Your task to perform on an android device: turn off location history Image 0: 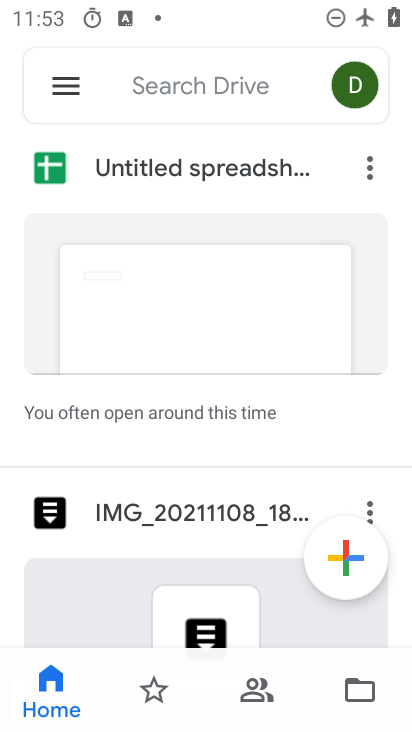
Step 0: press home button
Your task to perform on an android device: turn off location history Image 1: 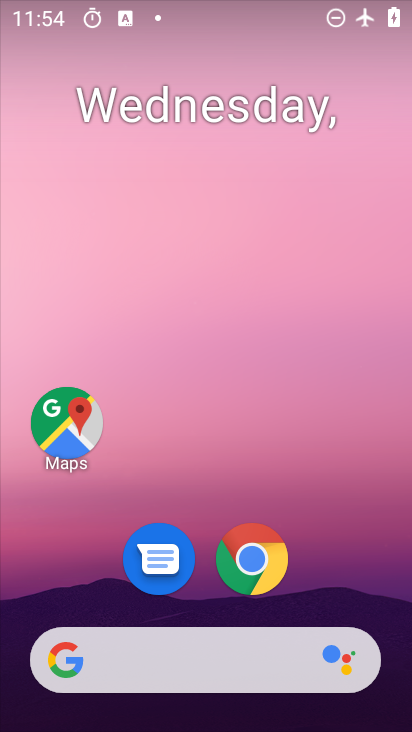
Step 1: drag from (215, 622) to (208, 81)
Your task to perform on an android device: turn off location history Image 2: 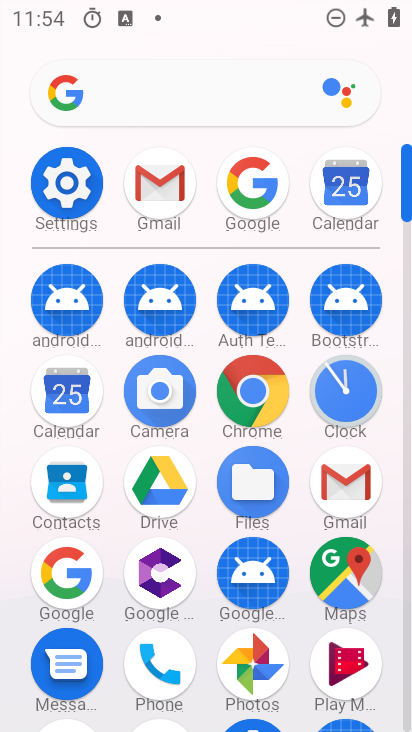
Step 2: click (75, 195)
Your task to perform on an android device: turn off location history Image 3: 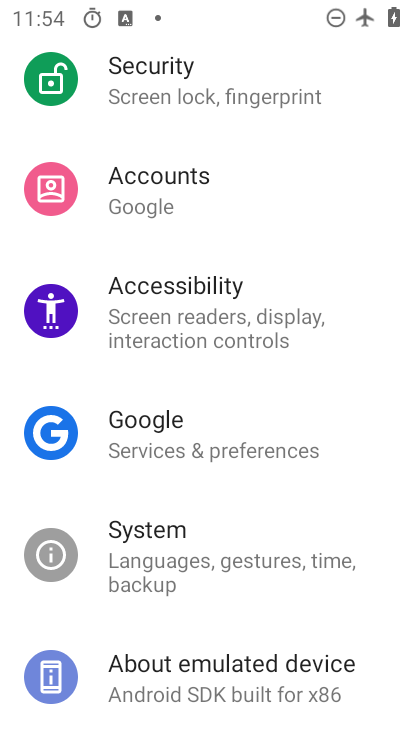
Step 3: drag from (238, 387) to (189, 694)
Your task to perform on an android device: turn off location history Image 4: 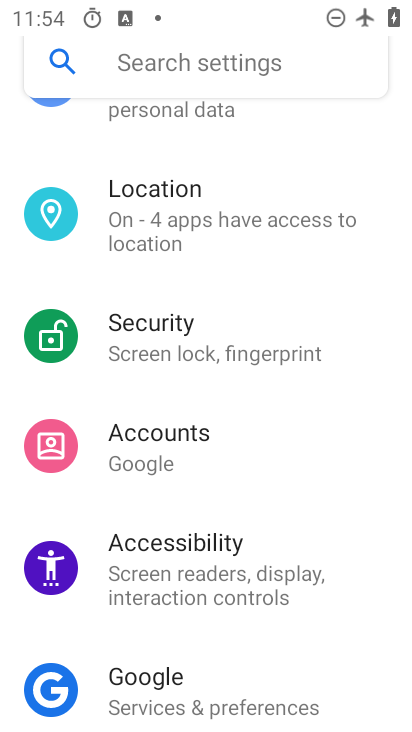
Step 4: click (256, 269)
Your task to perform on an android device: turn off location history Image 5: 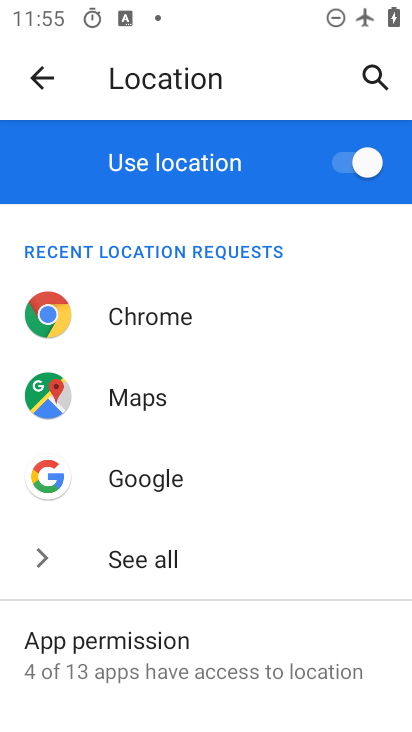
Step 5: drag from (189, 571) to (161, 231)
Your task to perform on an android device: turn off location history Image 6: 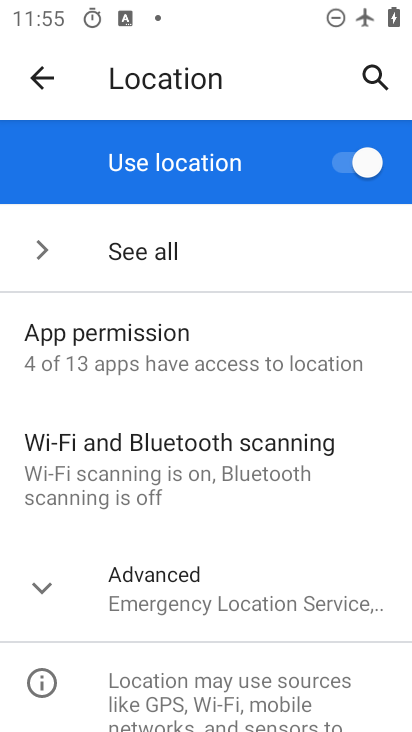
Step 6: click (168, 604)
Your task to perform on an android device: turn off location history Image 7: 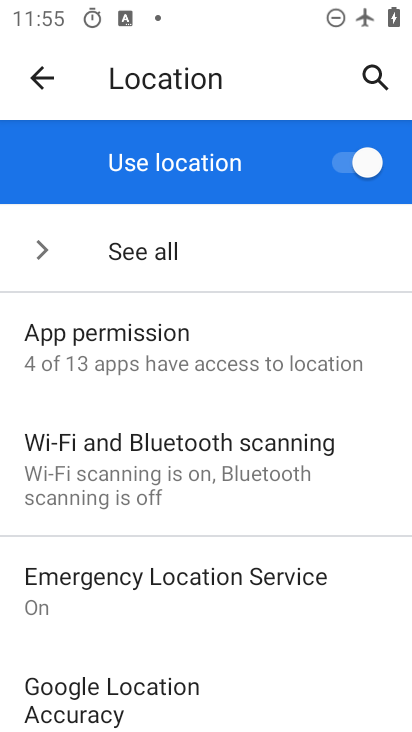
Step 7: drag from (156, 609) to (158, 291)
Your task to perform on an android device: turn off location history Image 8: 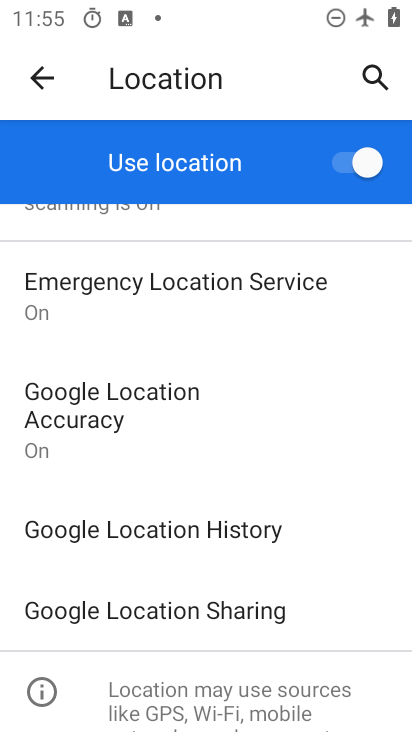
Step 8: click (192, 539)
Your task to perform on an android device: turn off location history Image 9: 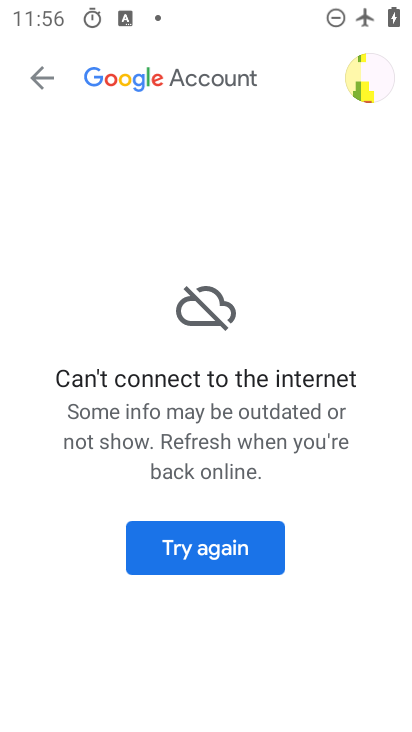
Step 9: task complete